Your task to perform on an android device: clear all cookies in the chrome app Image 0: 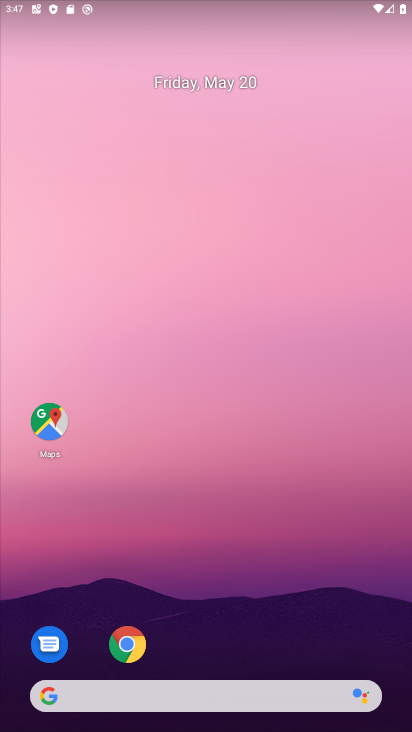
Step 0: click (117, 652)
Your task to perform on an android device: clear all cookies in the chrome app Image 1: 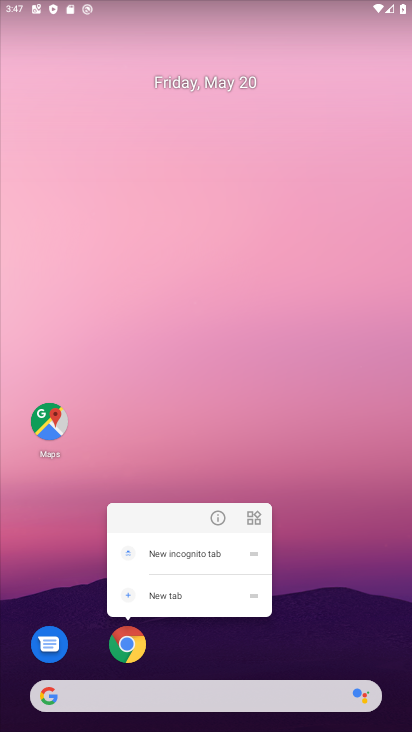
Step 1: click (117, 652)
Your task to perform on an android device: clear all cookies in the chrome app Image 2: 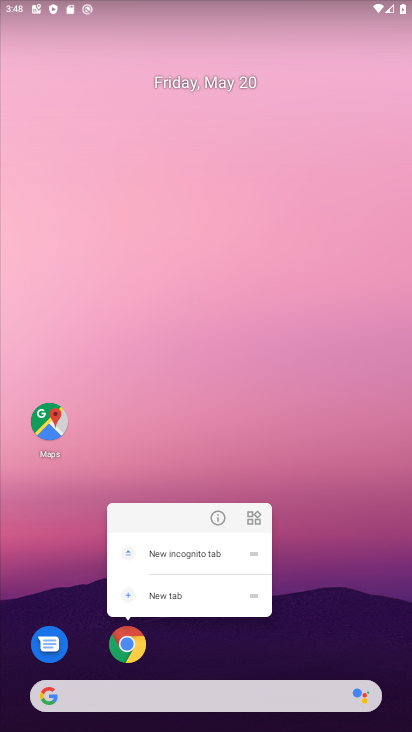
Step 2: click (133, 645)
Your task to perform on an android device: clear all cookies in the chrome app Image 3: 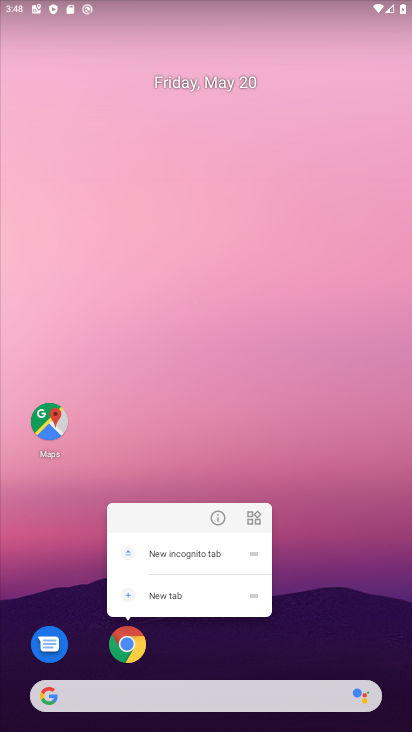
Step 3: click (133, 645)
Your task to perform on an android device: clear all cookies in the chrome app Image 4: 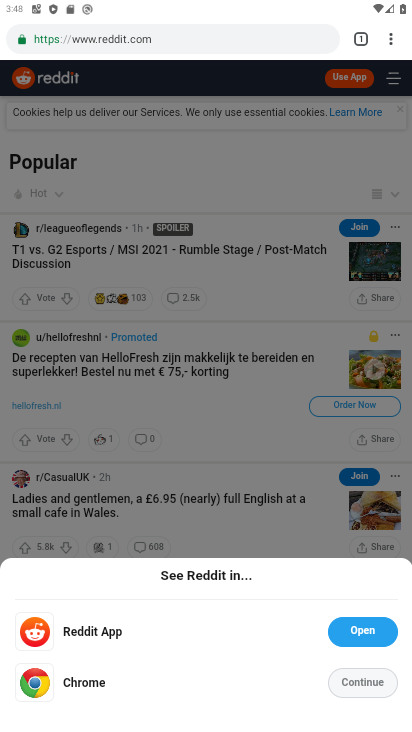
Step 4: task complete